Your task to perform on an android device: change keyboard looks Image 0: 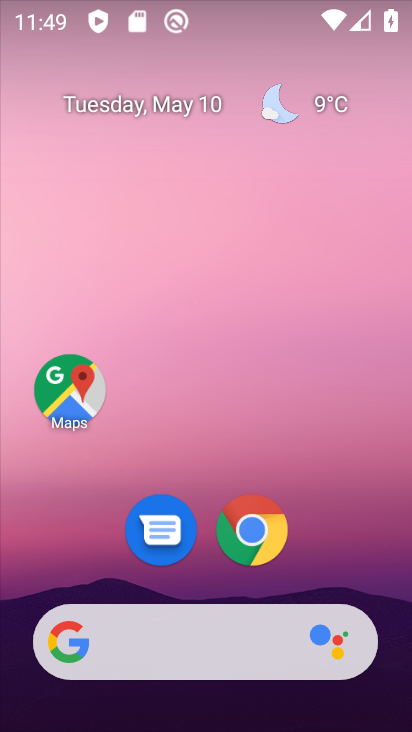
Step 0: drag from (339, 536) to (279, 156)
Your task to perform on an android device: change keyboard looks Image 1: 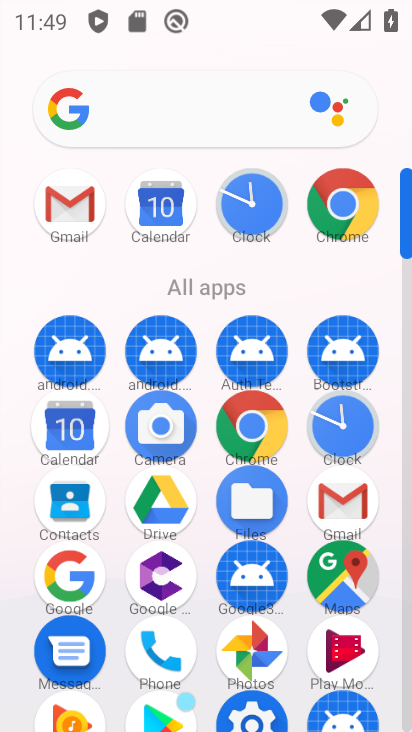
Step 1: click (269, 704)
Your task to perform on an android device: change keyboard looks Image 2: 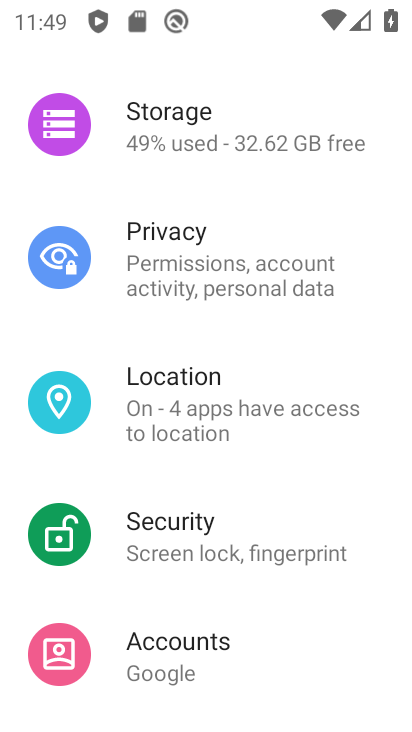
Step 2: drag from (266, 516) to (234, 171)
Your task to perform on an android device: change keyboard looks Image 3: 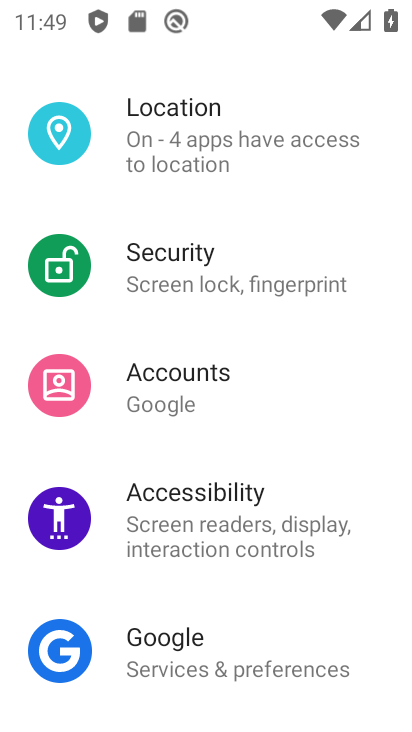
Step 3: drag from (234, 557) to (193, 128)
Your task to perform on an android device: change keyboard looks Image 4: 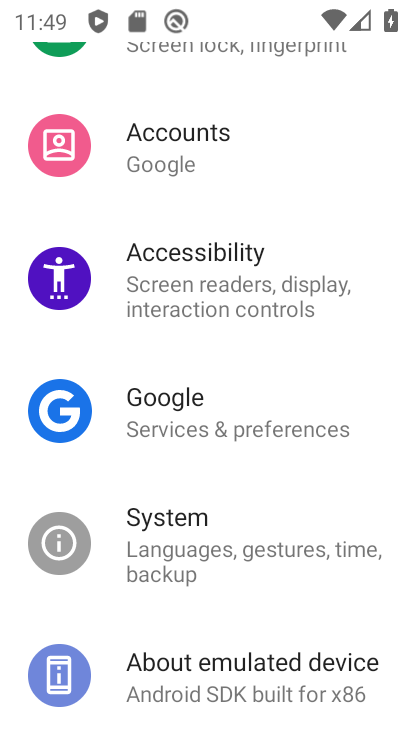
Step 4: drag from (262, 513) to (213, 328)
Your task to perform on an android device: change keyboard looks Image 5: 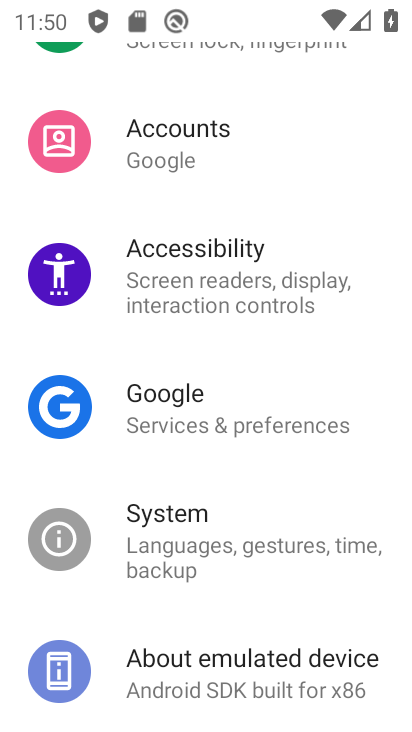
Step 5: click (203, 559)
Your task to perform on an android device: change keyboard looks Image 6: 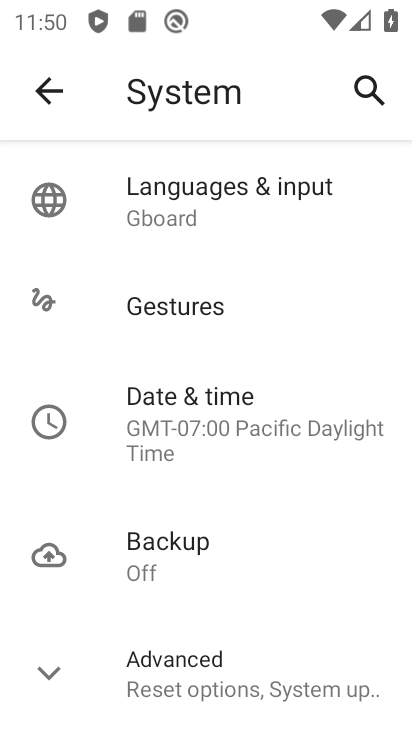
Step 6: click (182, 236)
Your task to perform on an android device: change keyboard looks Image 7: 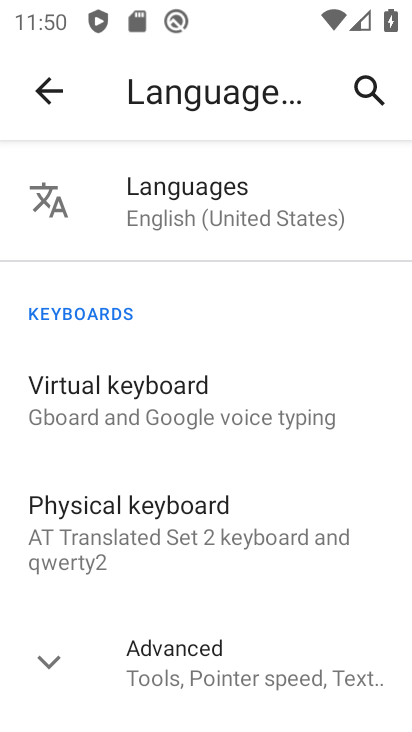
Step 7: click (165, 372)
Your task to perform on an android device: change keyboard looks Image 8: 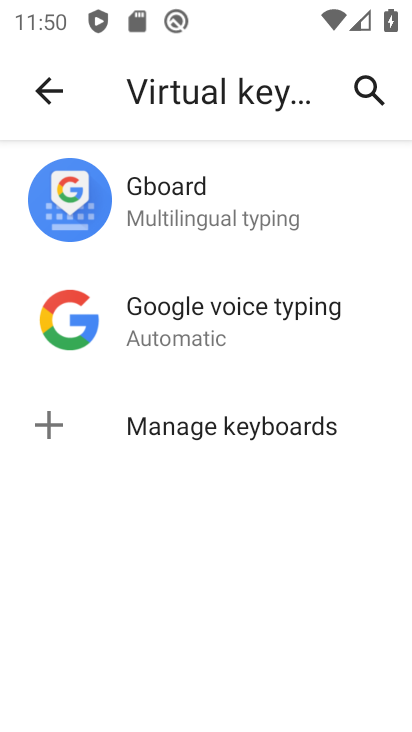
Step 8: click (147, 239)
Your task to perform on an android device: change keyboard looks Image 9: 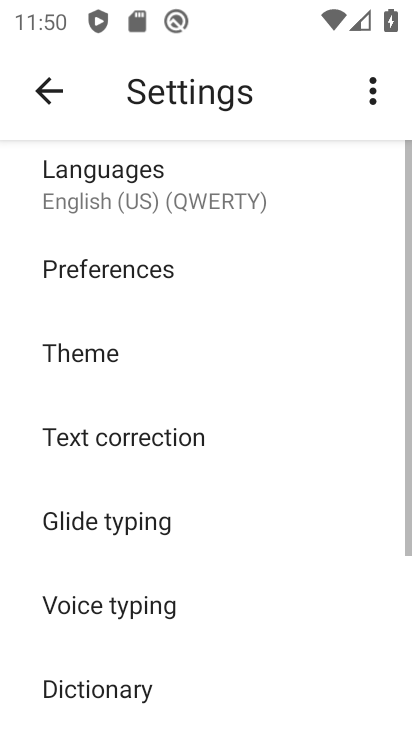
Step 9: click (148, 376)
Your task to perform on an android device: change keyboard looks Image 10: 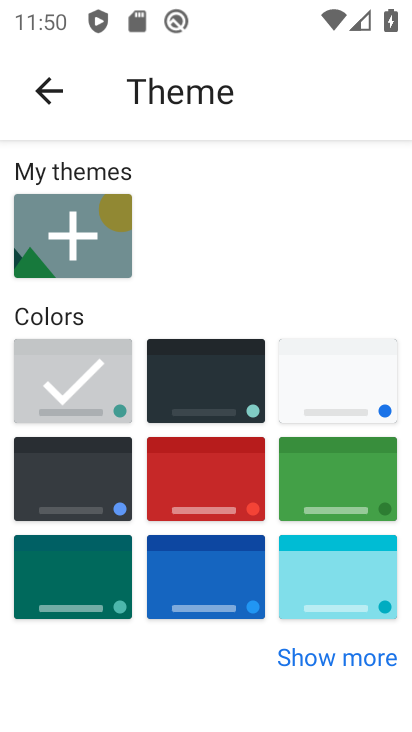
Step 10: click (220, 504)
Your task to perform on an android device: change keyboard looks Image 11: 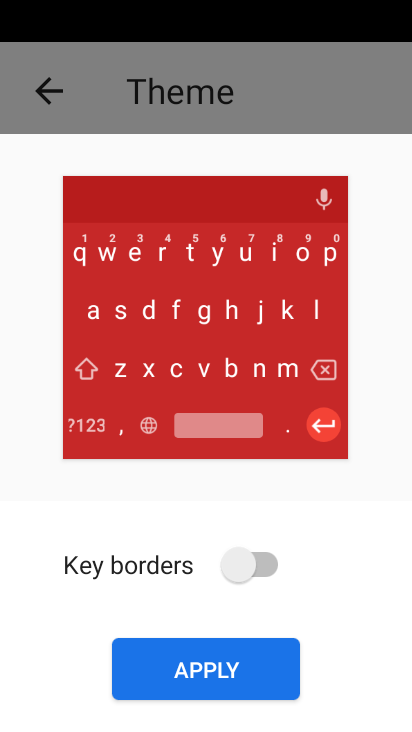
Step 11: click (222, 679)
Your task to perform on an android device: change keyboard looks Image 12: 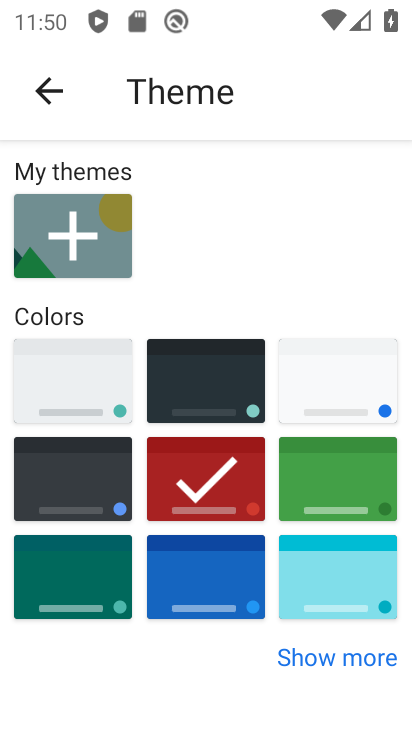
Step 12: task complete